Your task to perform on an android device: Open Yahoo.com Image 0: 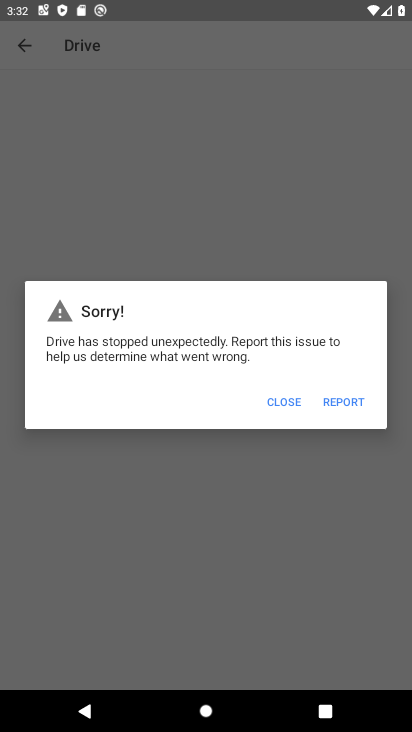
Step 0: press home button
Your task to perform on an android device: Open Yahoo.com Image 1: 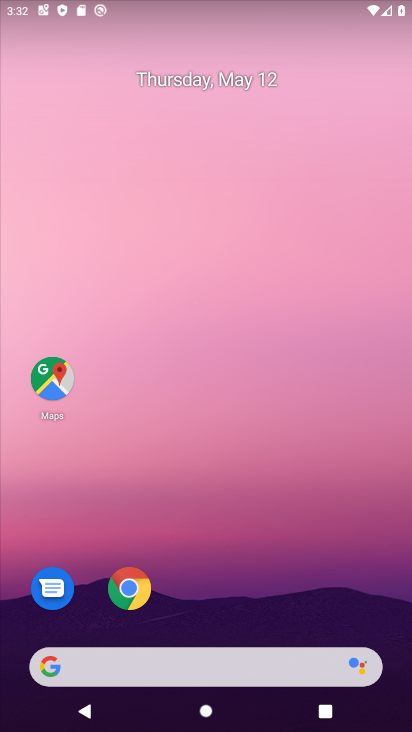
Step 1: drag from (289, 574) to (223, 21)
Your task to perform on an android device: Open Yahoo.com Image 2: 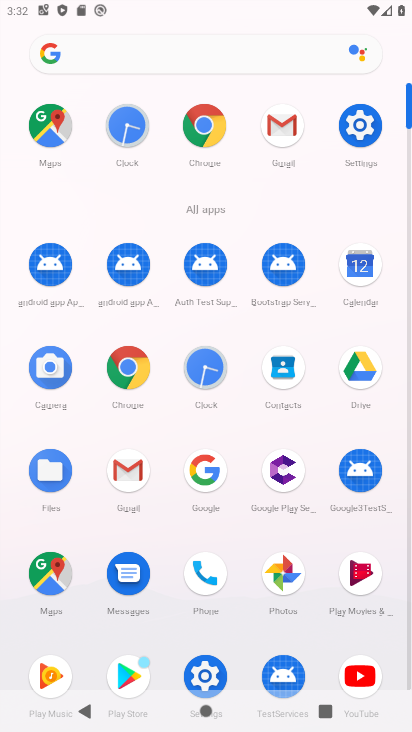
Step 2: click (215, 142)
Your task to perform on an android device: Open Yahoo.com Image 3: 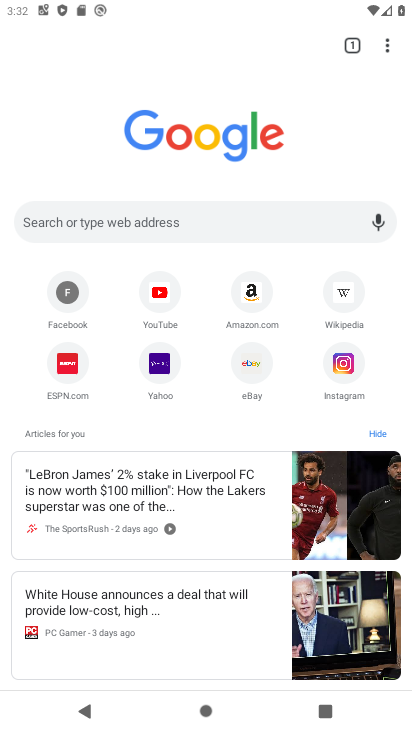
Step 3: click (146, 372)
Your task to perform on an android device: Open Yahoo.com Image 4: 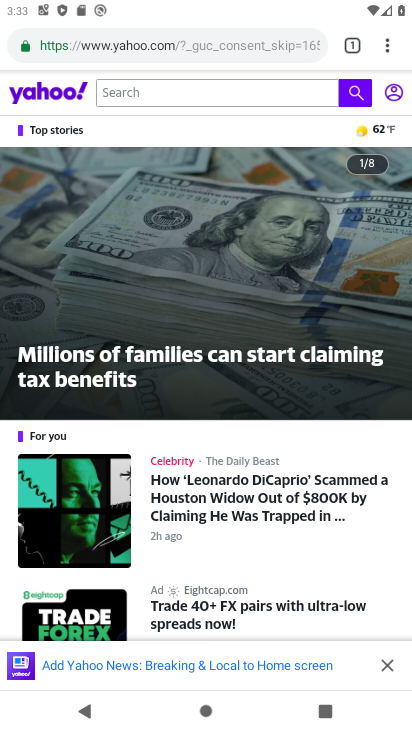
Step 4: task complete